Your task to perform on an android device: Is it going to rain tomorrow? Image 0: 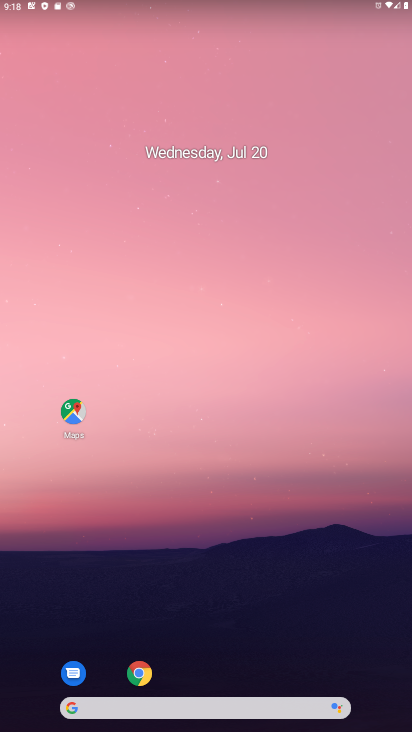
Step 0: drag from (227, 728) to (241, 204)
Your task to perform on an android device: Is it going to rain tomorrow? Image 1: 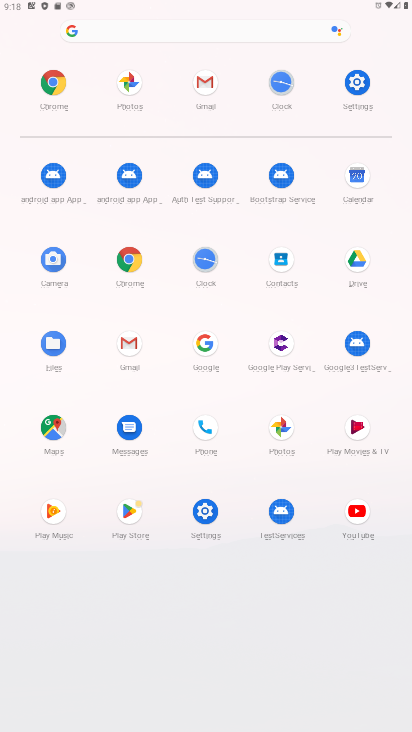
Step 1: click (204, 343)
Your task to perform on an android device: Is it going to rain tomorrow? Image 2: 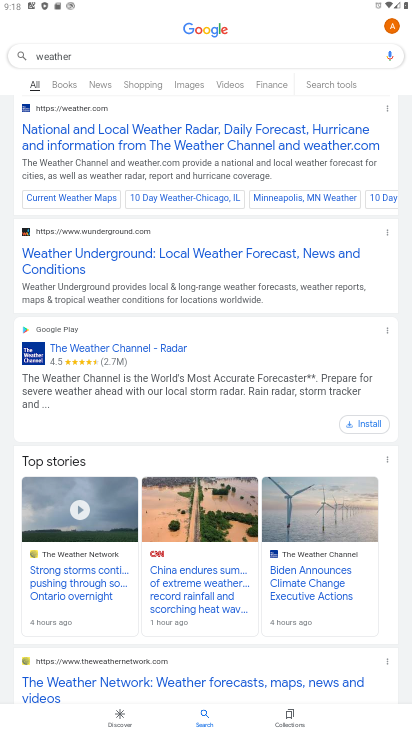
Step 2: click (119, 710)
Your task to perform on an android device: Is it going to rain tomorrow? Image 3: 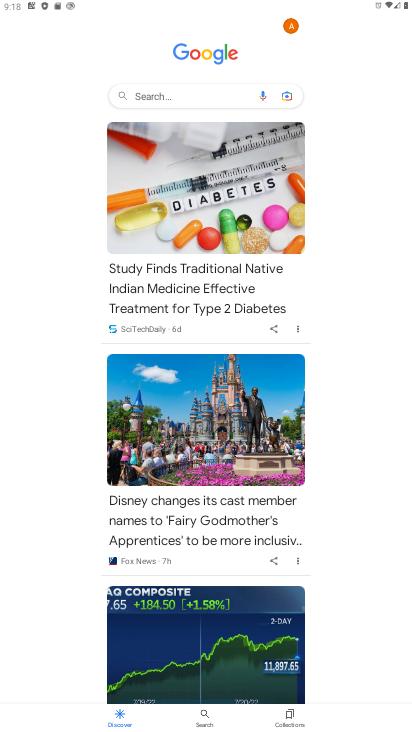
Step 3: click (178, 93)
Your task to perform on an android device: Is it going to rain tomorrow? Image 4: 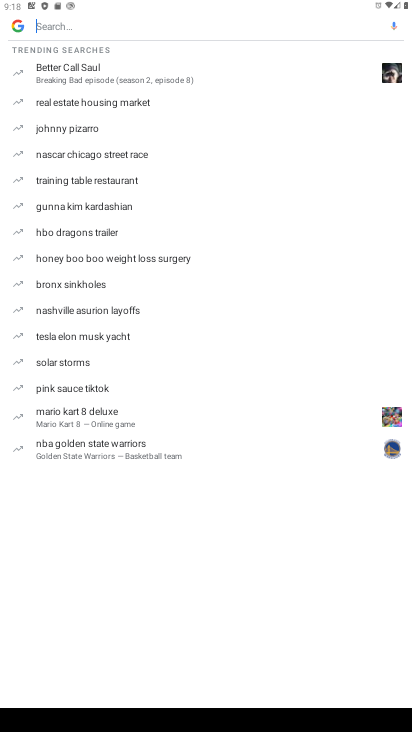
Step 4: type "Weather"
Your task to perform on an android device: Is it going to rain tomorrow? Image 5: 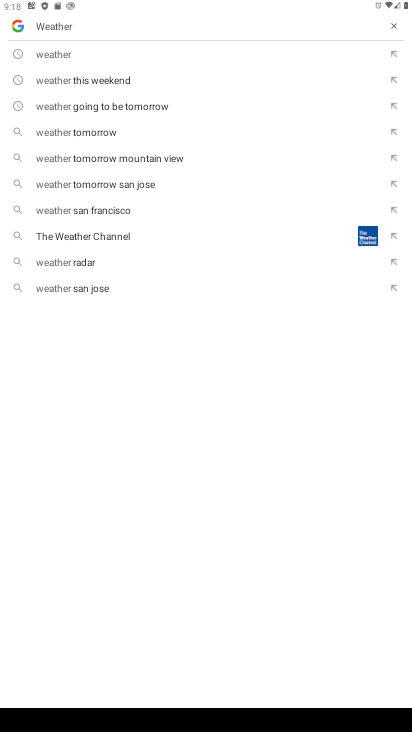
Step 5: click (42, 51)
Your task to perform on an android device: Is it going to rain tomorrow? Image 6: 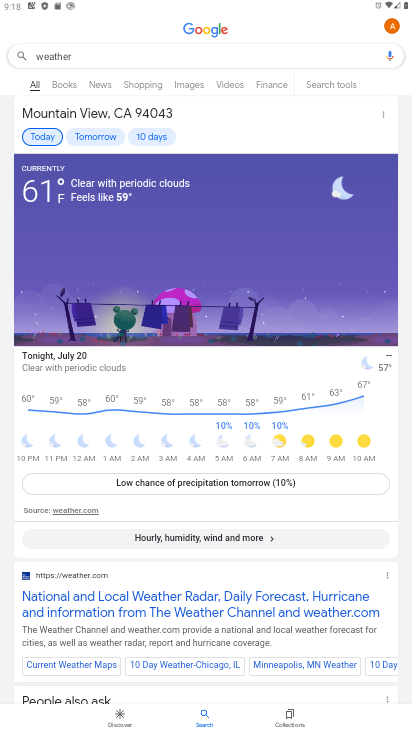
Step 6: click (41, 133)
Your task to perform on an android device: Is it going to rain tomorrow? Image 7: 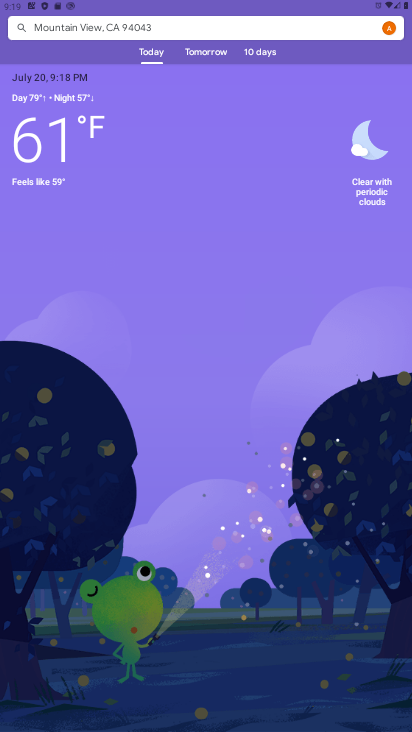
Step 7: click (204, 53)
Your task to perform on an android device: Is it going to rain tomorrow? Image 8: 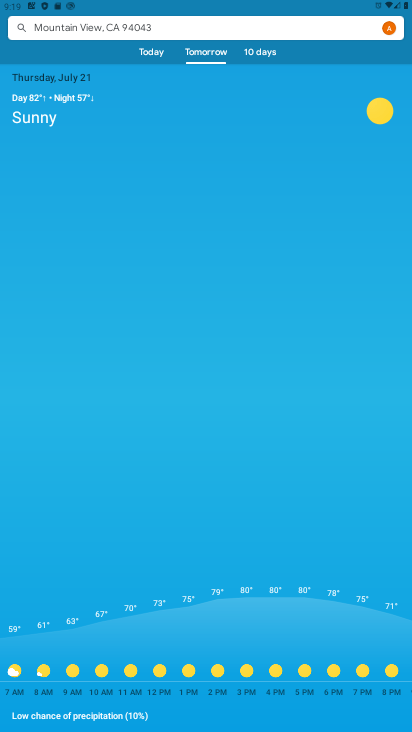
Step 8: task complete